Your task to perform on an android device: refresh tabs in the chrome app Image 0: 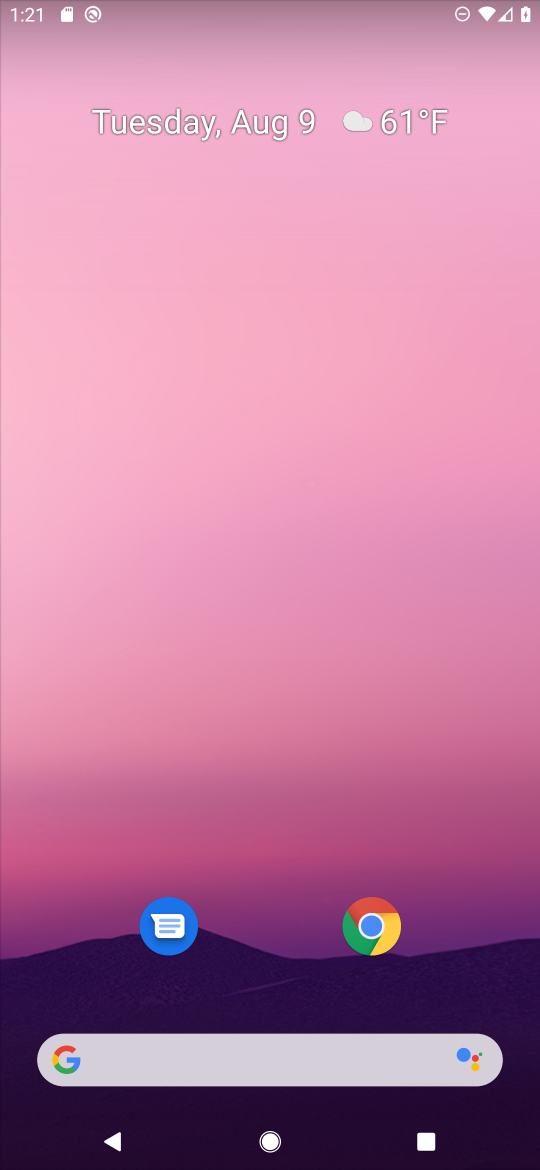
Step 0: click (357, 924)
Your task to perform on an android device: refresh tabs in the chrome app Image 1: 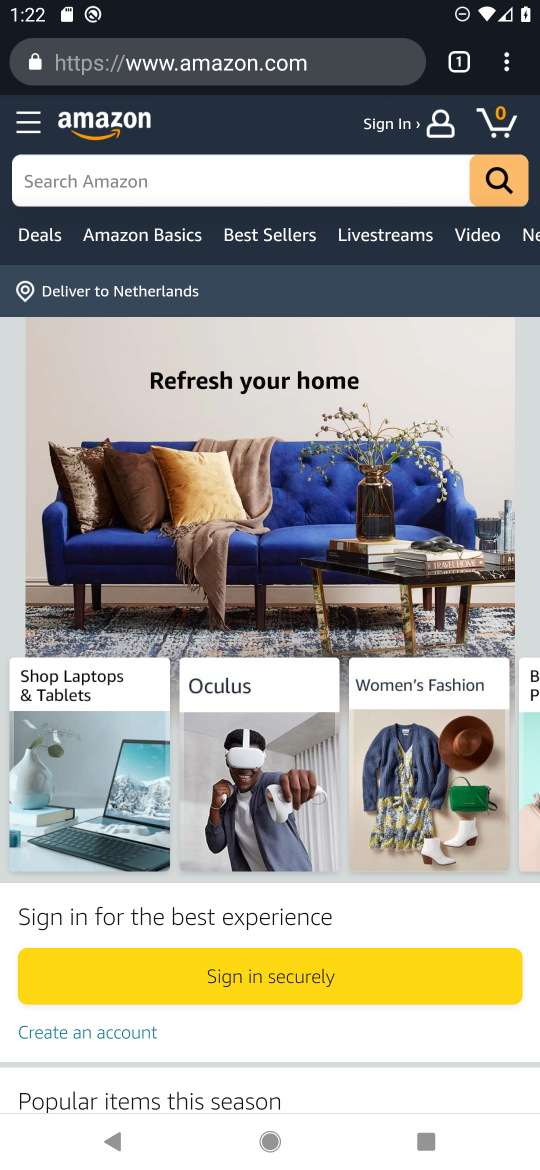
Step 1: click (511, 63)
Your task to perform on an android device: refresh tabs in the chrome app Image 2: 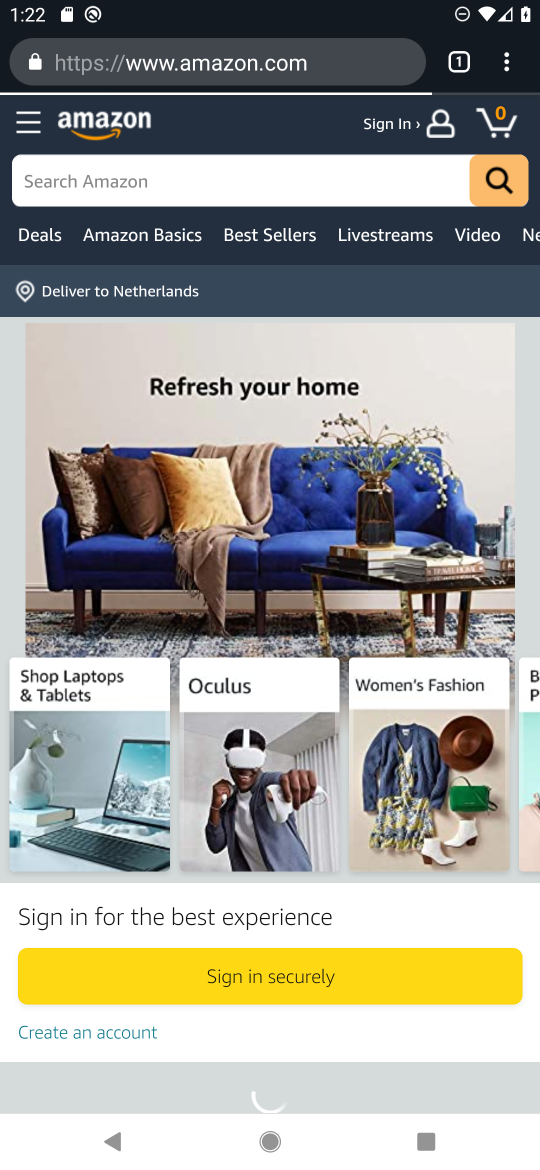
Step 2: click (503, 69)
Your task to perform on an android device: refresh tabs in the chrome app Image 3: 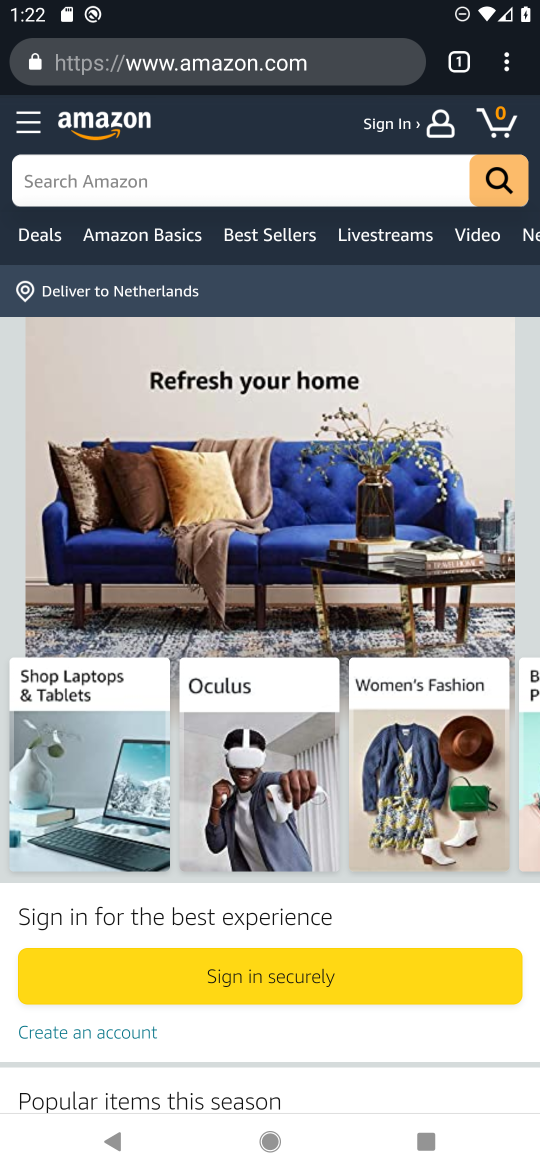
Step 3: click (502, 69)
Your task to perform on an android device: refresh tabs in the chrome app Image 4: 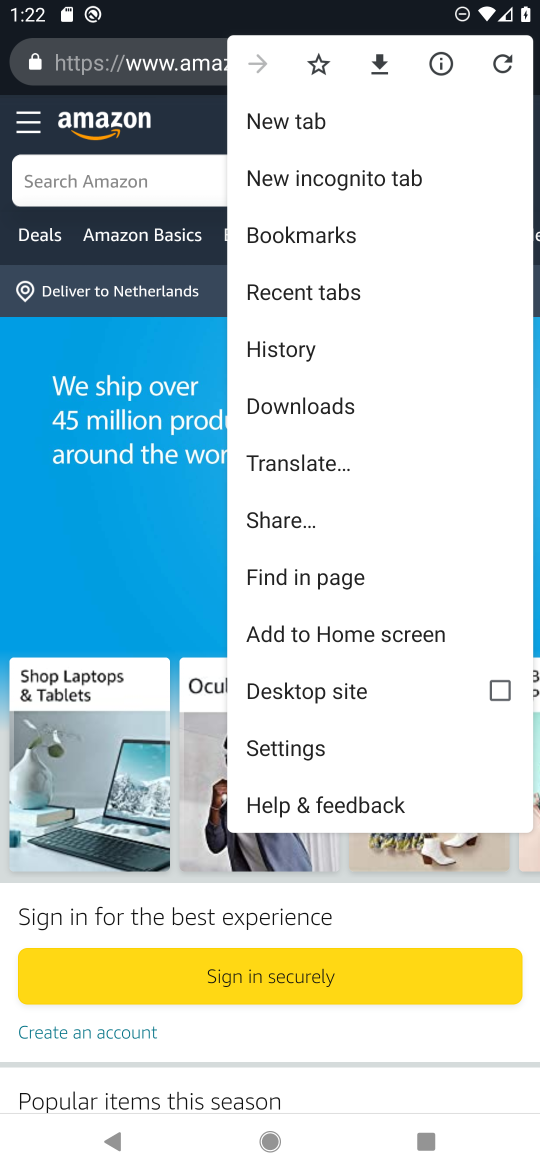
Step 4: click (502, 69)
Your task to perform on an android device: refresh tabs in the chrome app Image 5: 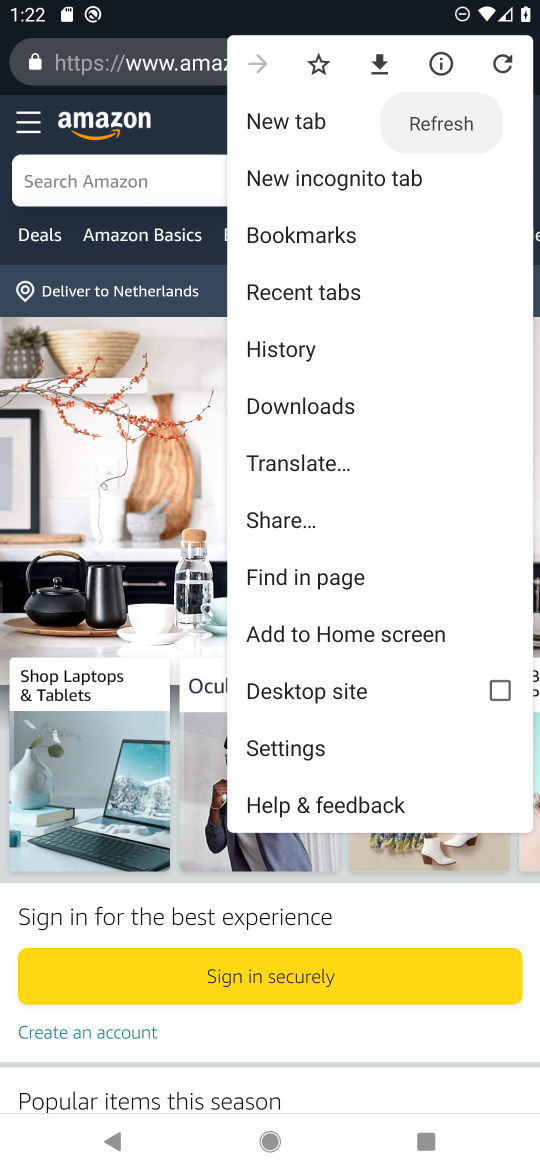
Step 5: task complete